Your task to perform on an android device: Search for energizer triple a on bestbuy, select the first entry, and add it to the cart. Image 0: 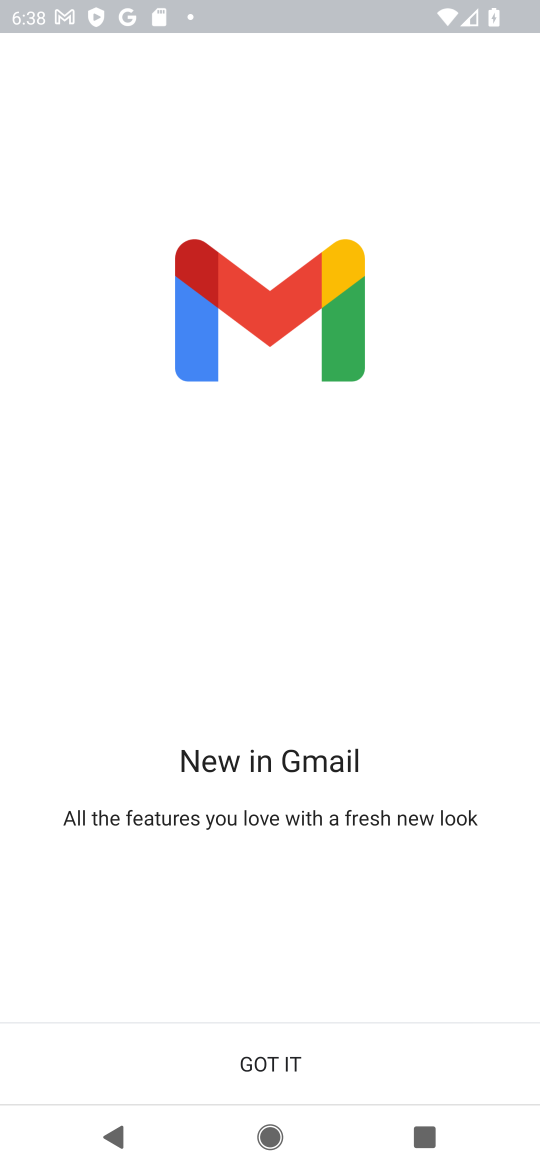
Step 0: press home button
Your task to perform on an android device: Search for energizer triple a on bestbuy, select the first entry, and add it to the cart. Image 1: 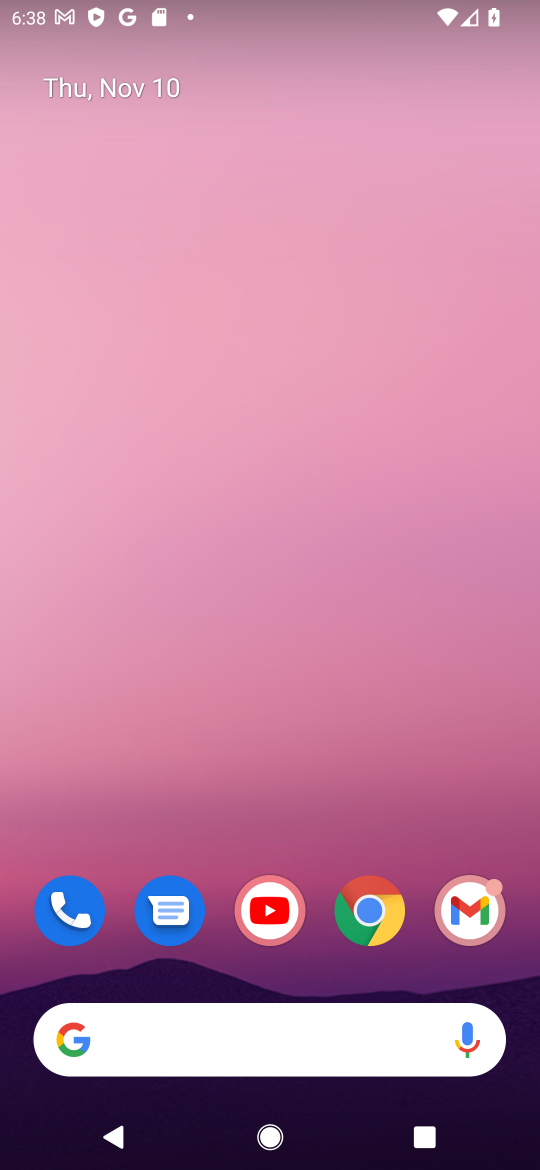
Step 1: click (371, 914)
Your task to perform on an android device: Search for energizer triple a on bestbuy, select the first entry, and add it to the cart. Image 2: 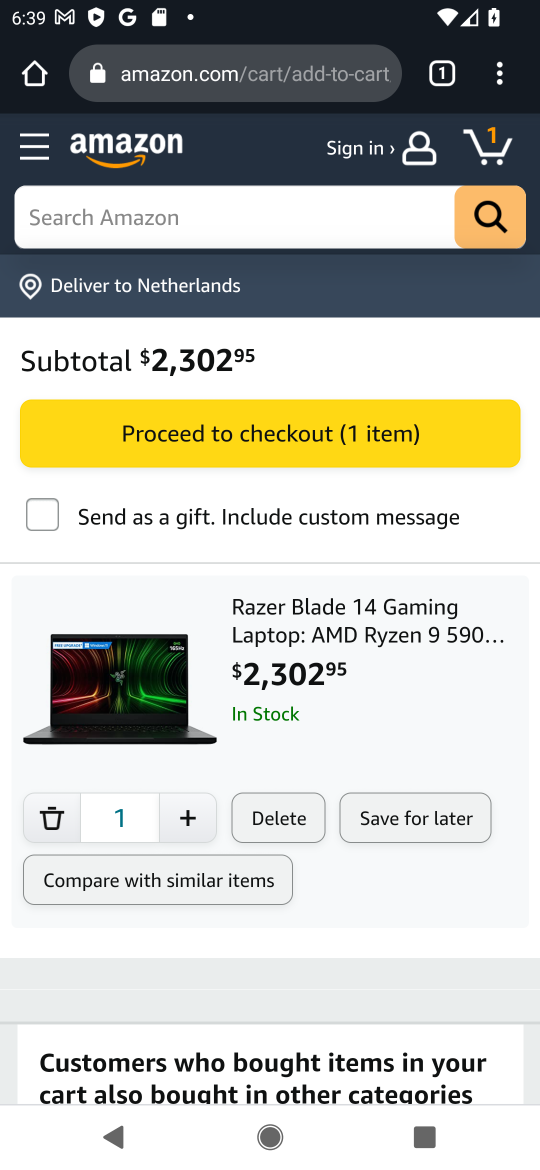
Step 2: click (340, 65)
Your task to perform on an android device: Search for energizer triple a on bestbuy, select the first entry, and add it to the cart. Image 3: 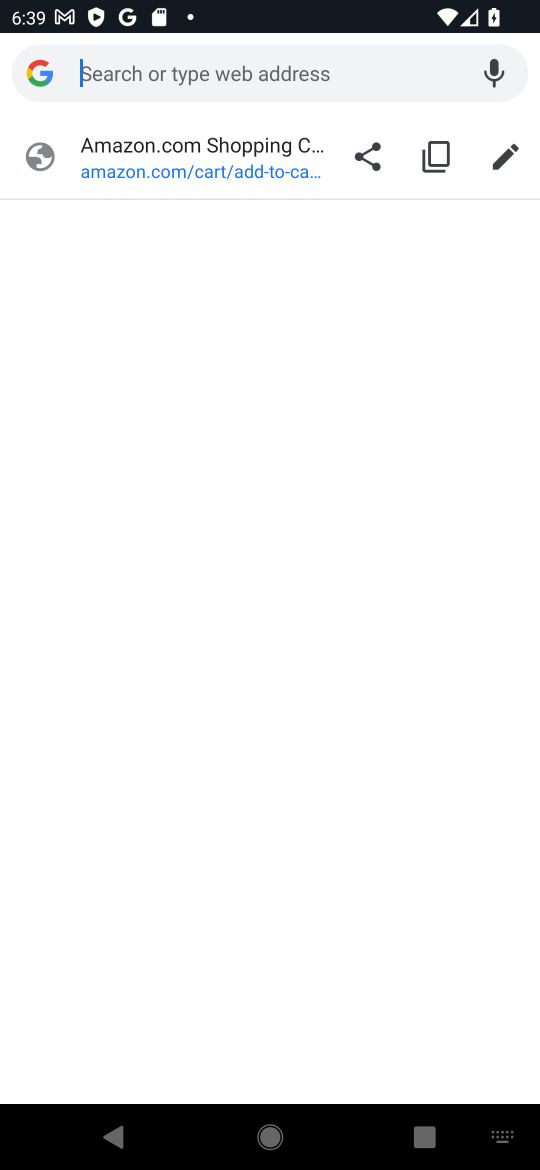
Step 3: type "bestbuy"
Your task to perform on an android device: Search for energizer triple a on bestbuy, select the first entry, and add it to the cart. Image 4: 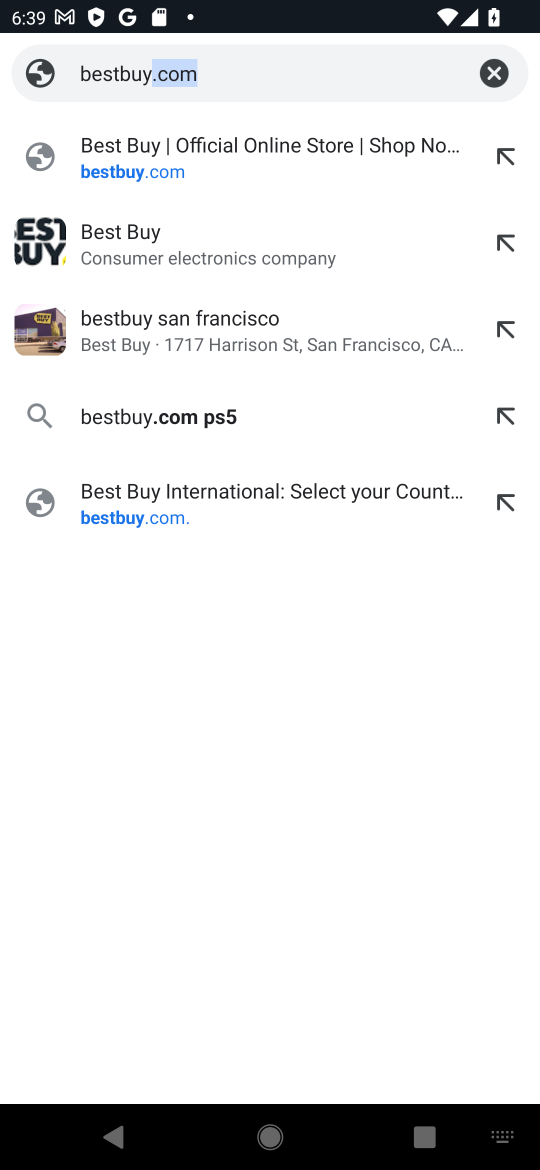
Step 4: click (129, 246)
Your task to perform on an android device: Search for energizer triple a on bestbuy, select the first entry, and add it to the cart. Image 5: 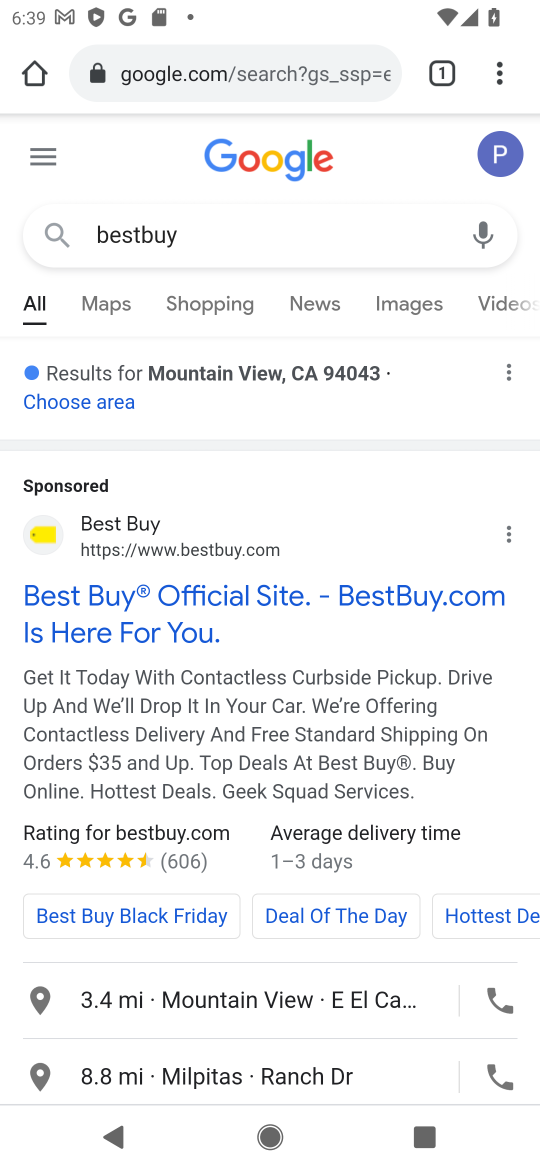
Step 5: drag from (260, 794) to (344, 395)
Your task to perform on an android device: Search for energizer triple a on bestbuy, select the first entry, and add it to the cart. Image 6: 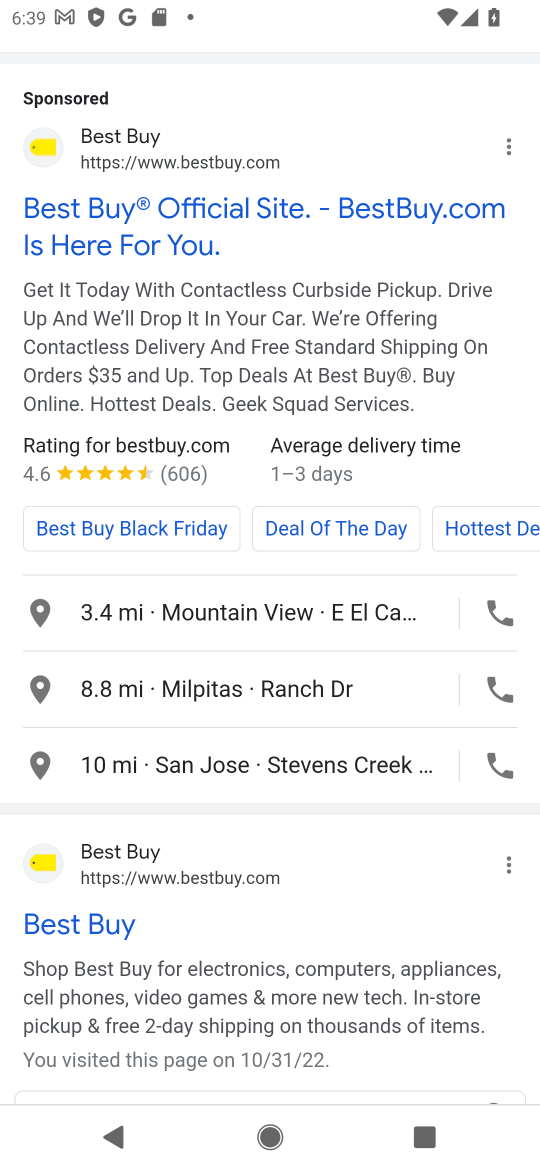
Step 6: drag from (230, 771) to (273, 282)
Your task to perform on an android device: Search for energizer triple a on bestbuy, select the first entry, and add it to the cart. Image 7: 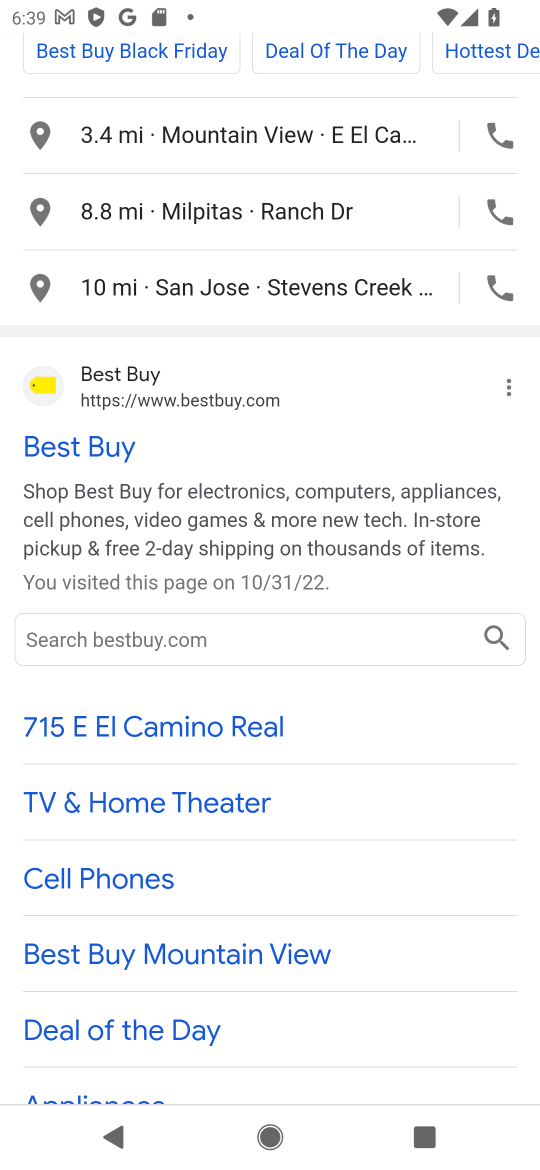
Step 7: click (144, 451)
Your task to perform on an android device: Search for energizer triple a on bestbuy, select the first entry, and add it to the cart. Image 8: 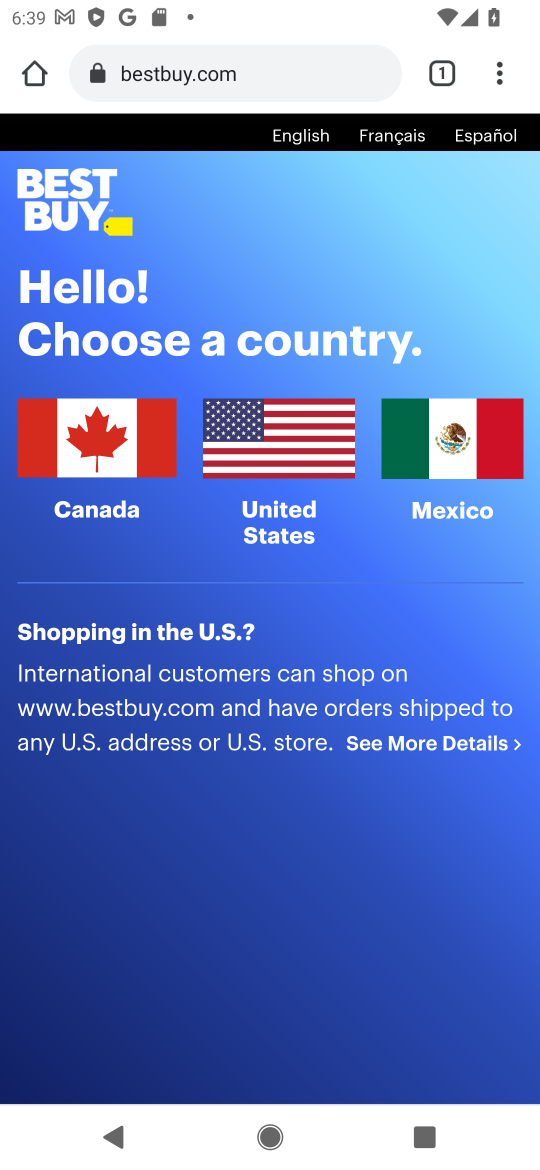
Step 8: click (245, 444)
Your task to perform on an android device: Search for energizer triple a on bestbuy, select the first entry, and add it to the cart. Image 9: 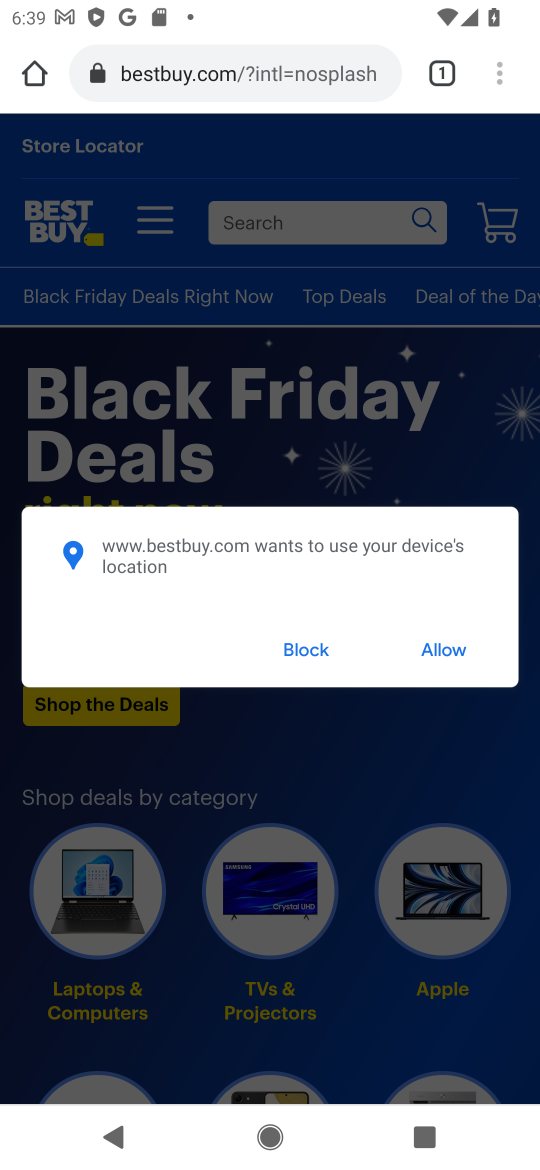
Step 9: click (428, 651)
Your task to perform on an android device: Search for energizer triple a on bestbuy, select the first entry, and add it to the cart. Image 10: 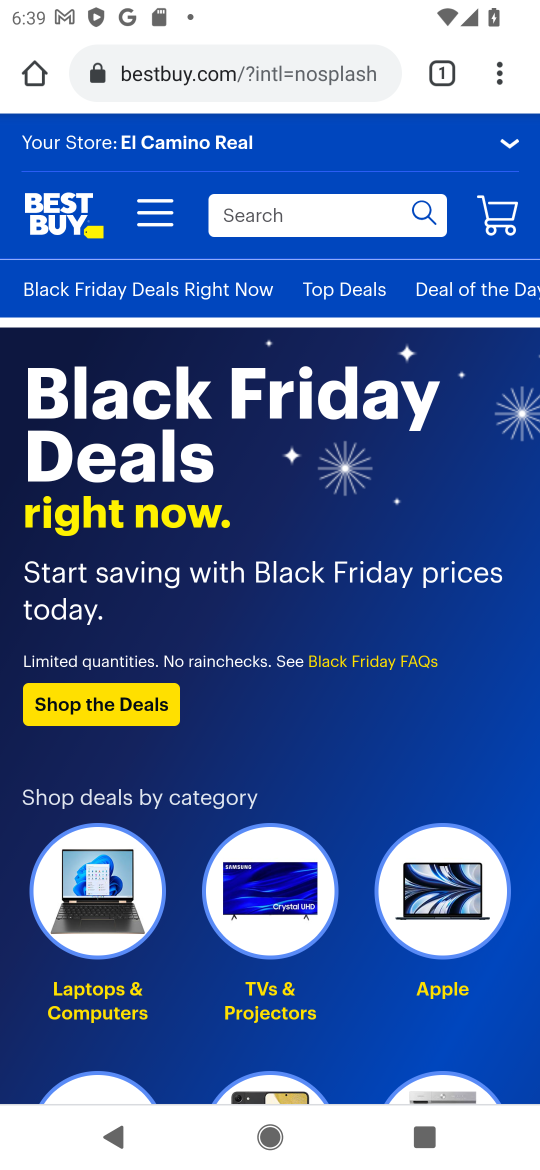
Step 10: click (325, 208)
Your task to perform on an android device: Search for energizer triple a on bestbuy, select the first entry, and add it to the cart. Image 11: 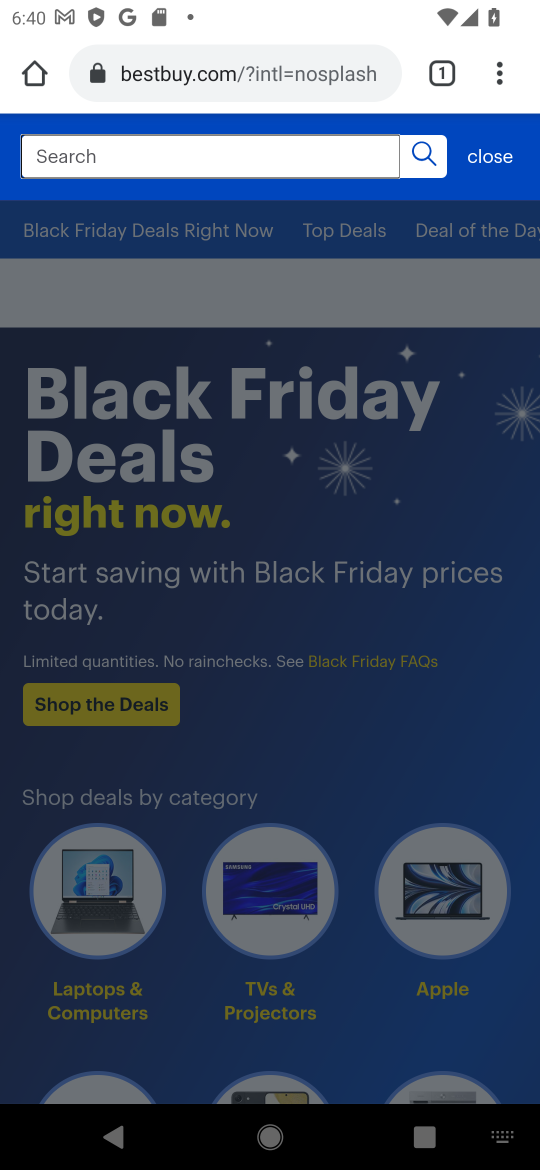
Step 11: click (335, 149)
Your task to perform on an android device: Search for energizer triple a on bestbuy, select the first entry, and add it to the cart. Image 12: 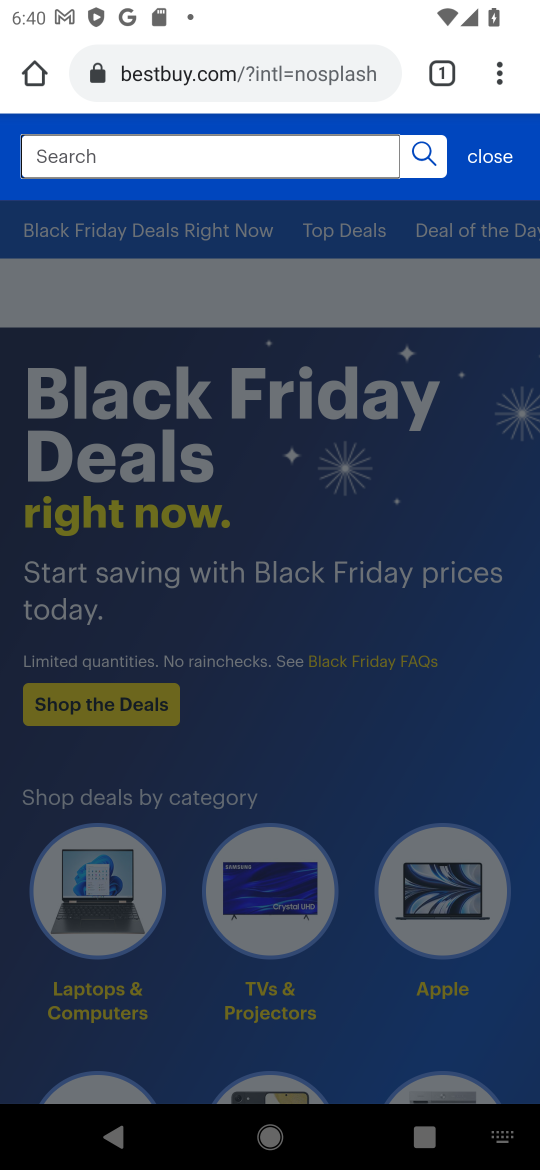
Step 12: type "energizer triple a "
Your task to perform on an android device: Search for energizer triple a on bestbuy, select the first entry, and add it to the cart. Image 13: 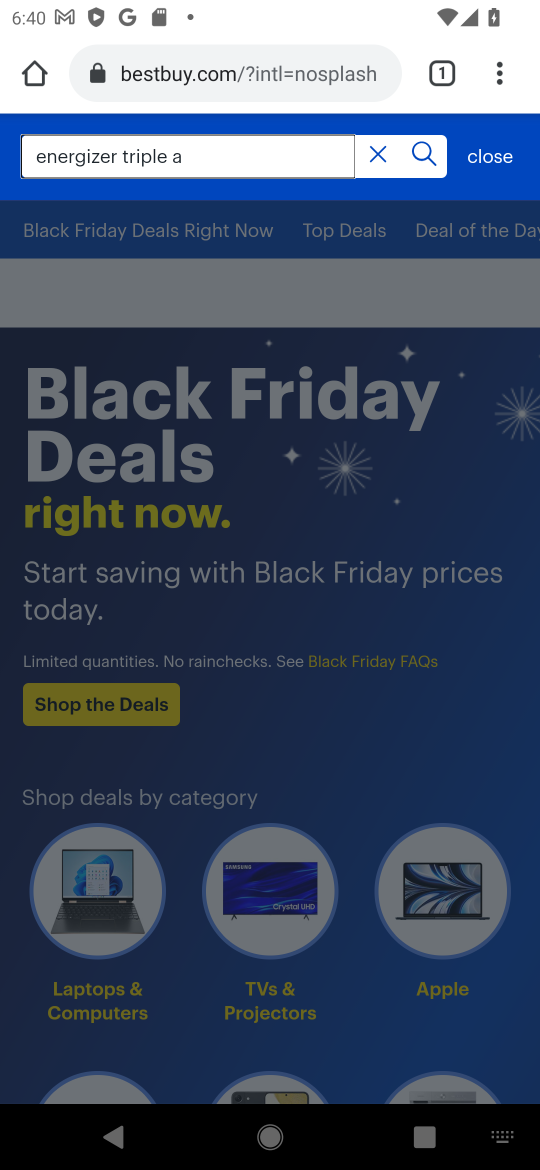
Step 13: click (423, 156)
Your task to perform on an android device: Search for energizer triple a on bestbuy, select the first entry, and add it to the cart. Image 14: 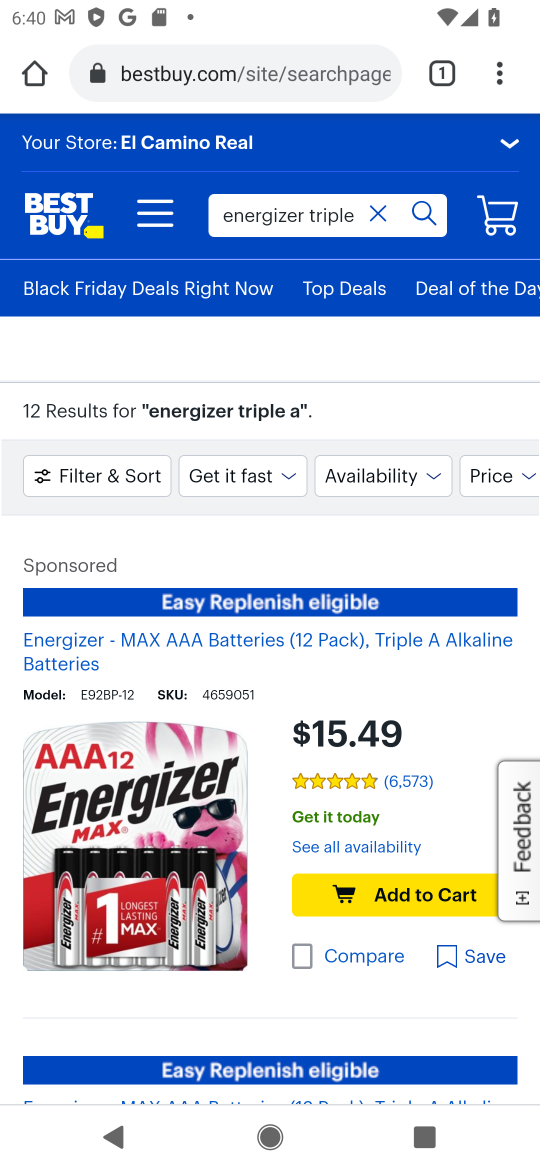
Step 14: drag from (265, 746) to (357, 450)
Your task to perform on an android device: Search for energizer triple a on bestbuy, select the first entry, and add it to the cart. Image 15: 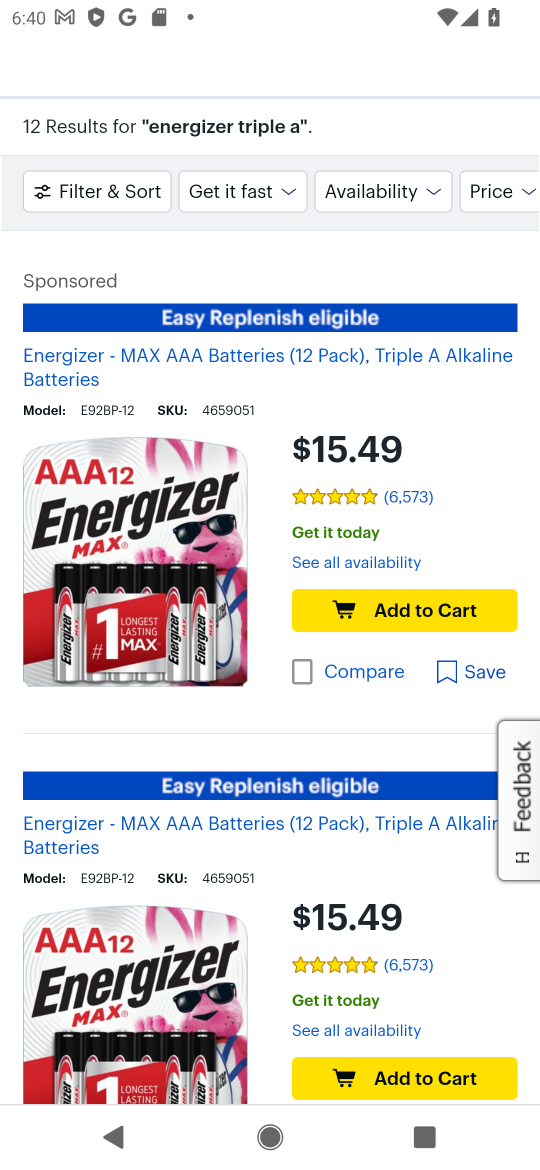
Step 15: click (397, 374)
Your task to perform on an android device: Search for energizer triple a on bestbuy, select the first entry, and add it to the cart. Image 16: 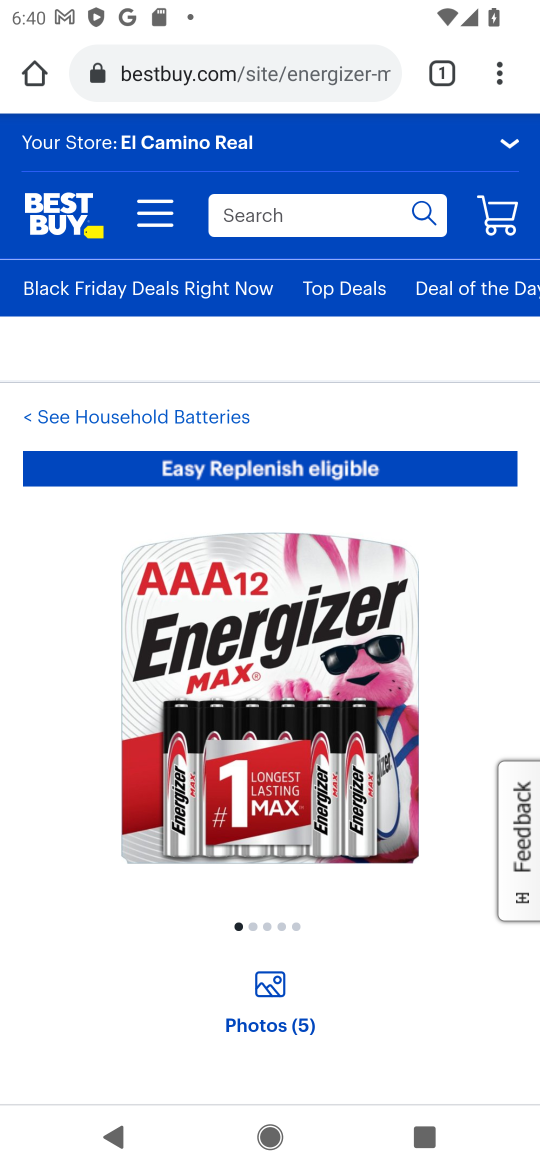
Step 16: drag from (324, 985) to (437, 493)
Your task to perform on an android device: Search for energizer triple a on bestbuy, select the first entry, and add it to the cart. Image 17: 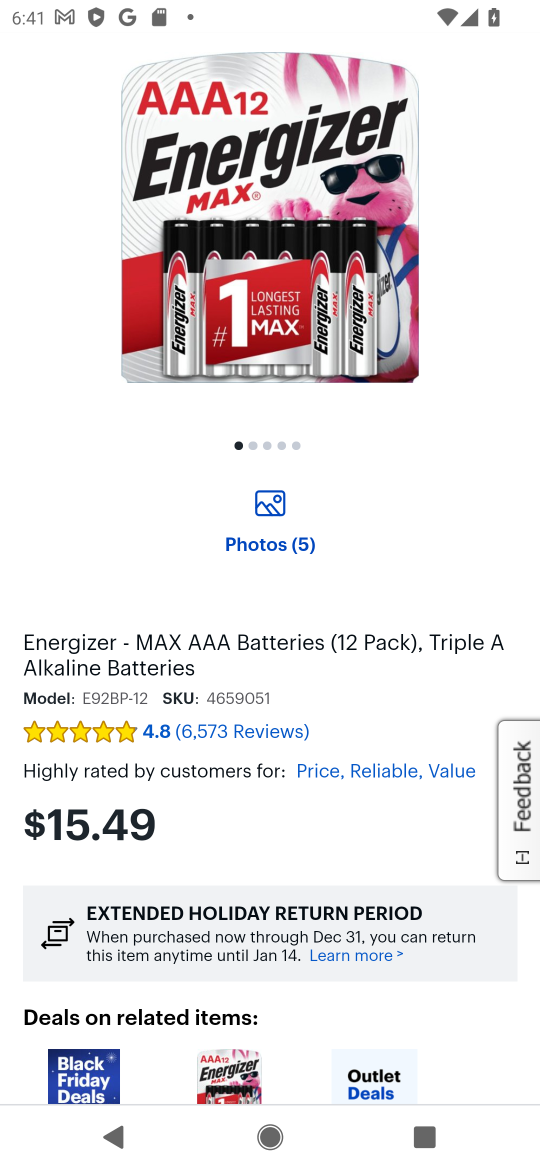
Step 17: drag from (307, 826) to (401, 476)
Your task to perform on an android device: Search for energizer triple a on bestbuy, select the first entry, and add it to the cart. Image 18: 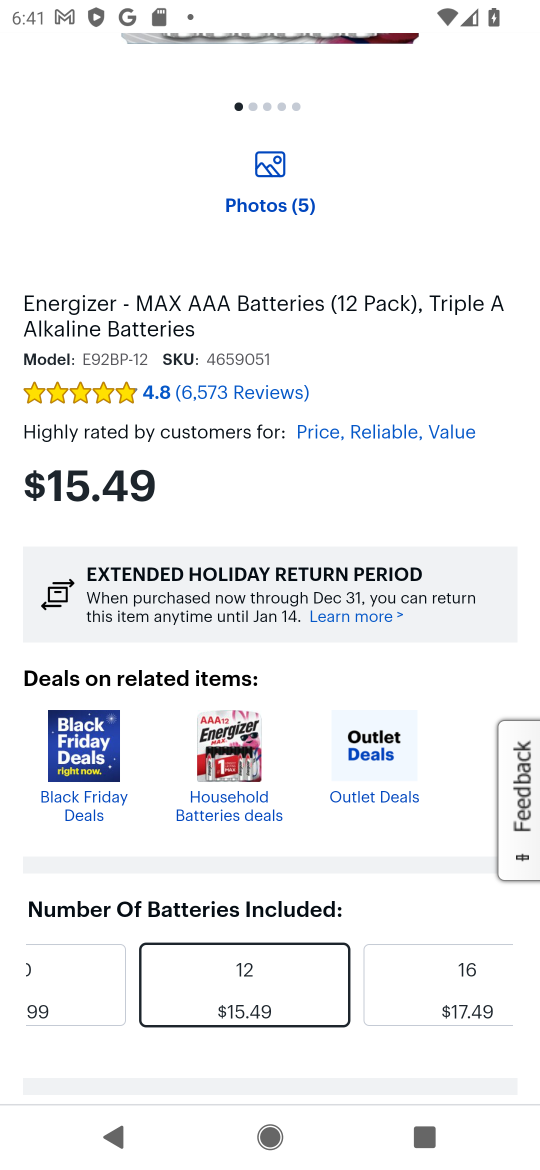
Step 18: drag from (343, 869) to (397, 496)
Your task to perform on an android device: Search for energizer triple a on bestbuy, select the first entry, and add it to the cart. Image 19: 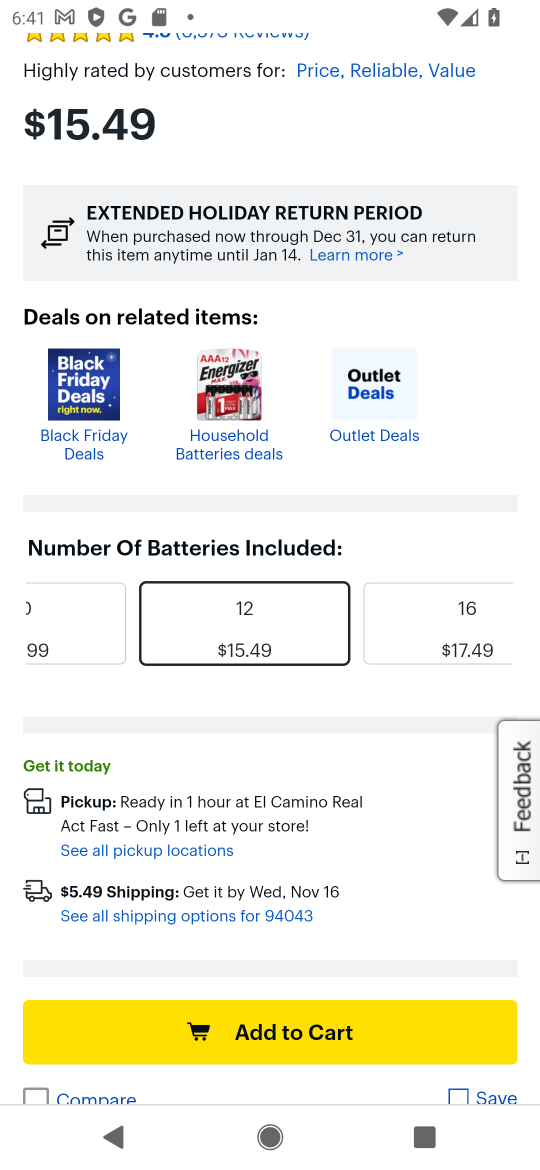
Step 19: click (287, 1032)
Your task to perform on an android device: Search for energizer triple a on bestbuy, select the first entry, and add it to the cart. Image 20: 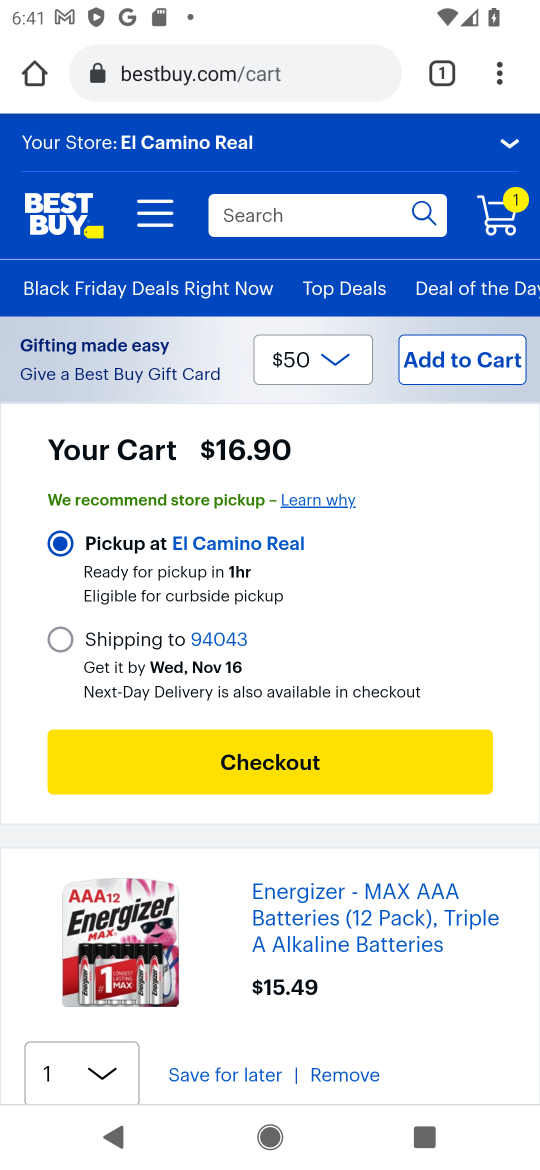
Step 20: task complete